Your task to perform on an android device: open app "Chime – Mobile Banking" (install if not already installed), go to login, and select forgot password Image 0: 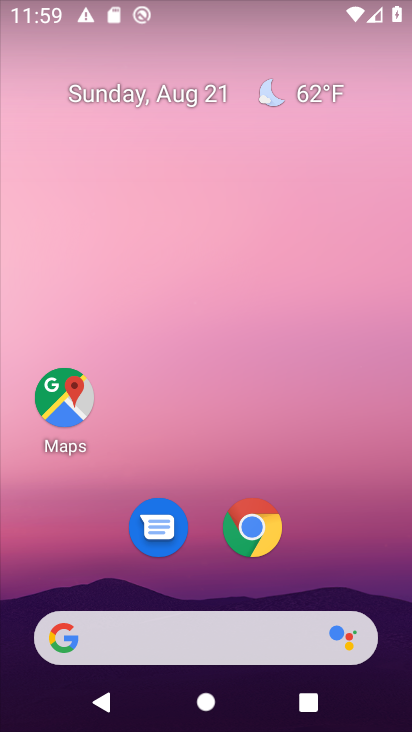
Step 0: drag from (198, 513) to (272, 7)
Your task to perform on an android device: open app "Chime – Mobile Banking" (install if not already installed), go to login, and select forgot password Image 1: 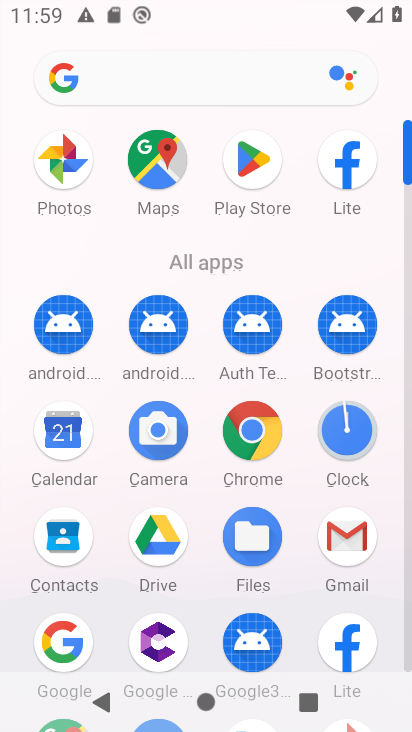
Step 1: click (258, 158)
Your task to perform on an android device: open app "Chime – Mobile Banking" (install if not already installed), go to login, and select forgot password Image 2: 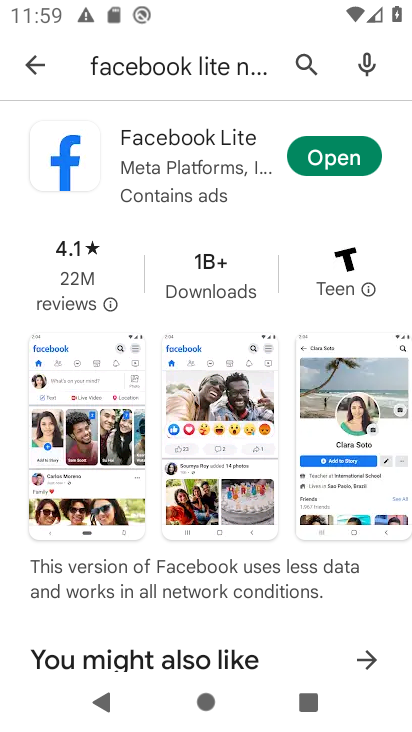
Step 2: click (308, 61)
Your task to perform on an android device: open app "Chime – Mobile Banking" (install if not already installed), go to login, and select forgot password Image 3: 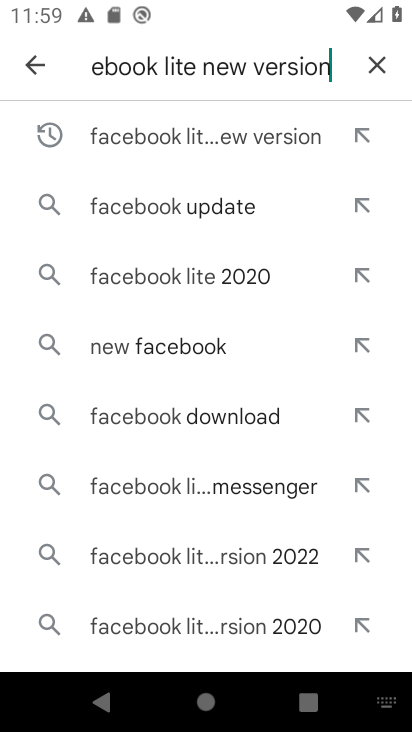
Step 3: click (382, 62)
Your task to perform on an android device: open app "Chime – Mobile Banking" (install if not already installed), go to login, and select forgot password Image 4: 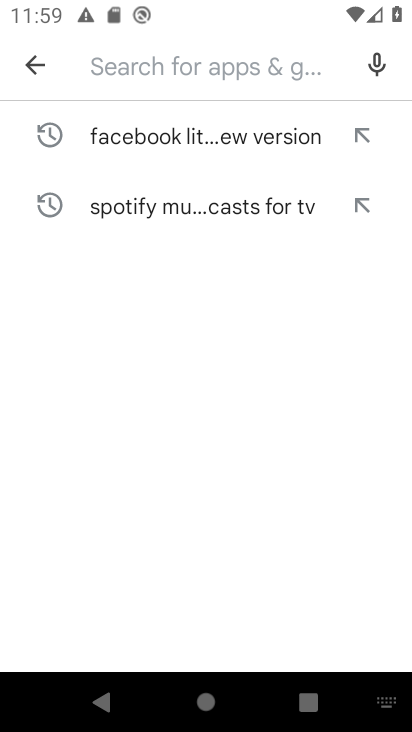
Step 4: click (208, 70)
Your task to perform on an android device: open app "Chime – Mobile Banking" (install if not already installed), go to login, and select forgot password Image 5: 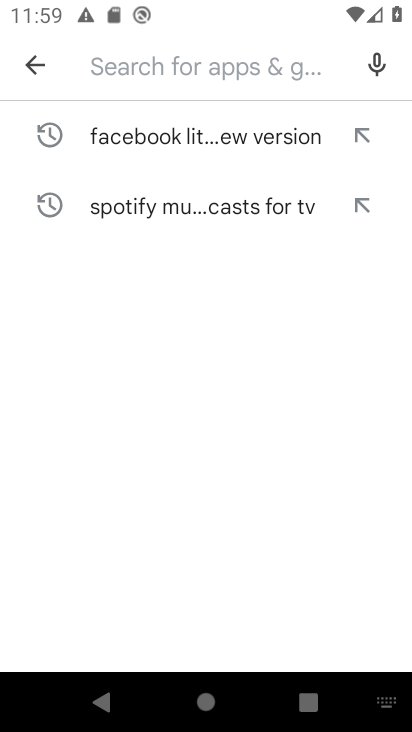
Step 5: type "chime"
Your task to perform on an android device: open app "Chime – Mobile Banking" (install if not already installed), go to login, and select forgot password Image 6: 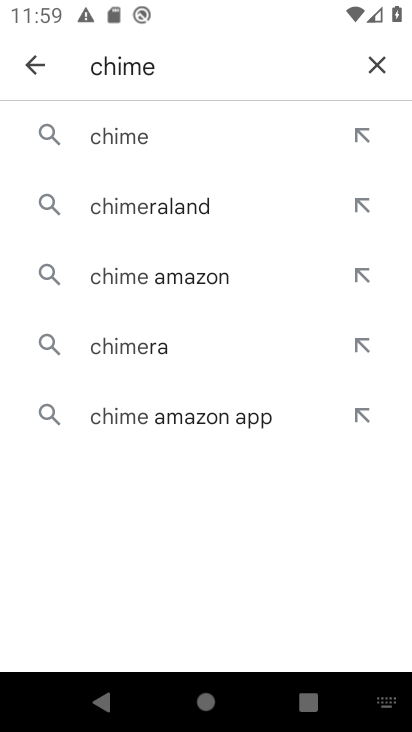
Step 6: click (164, 143)
Your task to perform on an android device: open app "Chime – Mobile Banking" (install if not already installed), go to login, and select forgot password Image 7: 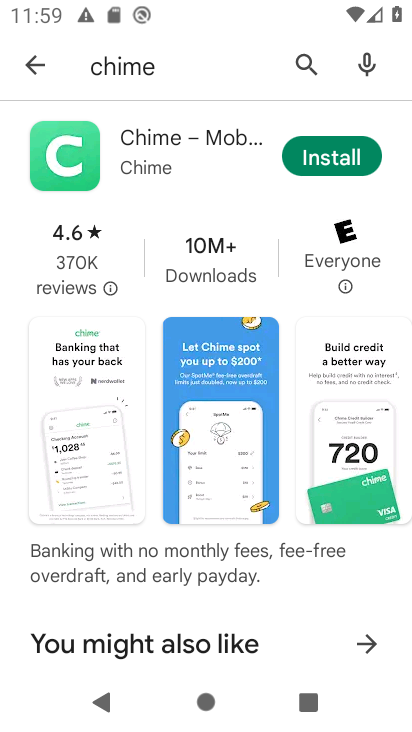
Step 7: click (292, 159)
Your task to perform on an android device: open app "Chime – Mobile Banking" (install if not already installed), go to login, and select forgot password Image 8: 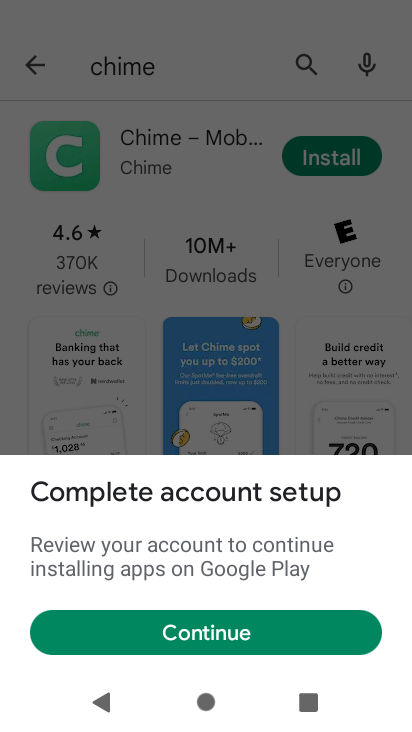
Step 8: click (243, 635)
Your task to perform on an android device: open app "Chime – Mobile Banking" (install if not already installed), go to login, and select forgot password Image 9: 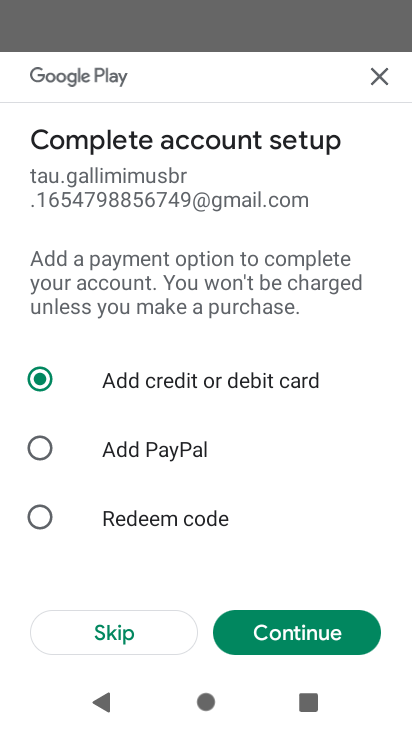
Step 9: click (140, 637)
Your task to perform on an android device: open app "Chime – Mobile Banking" (install if not already installed), go to login, and select forgot password Image 10: 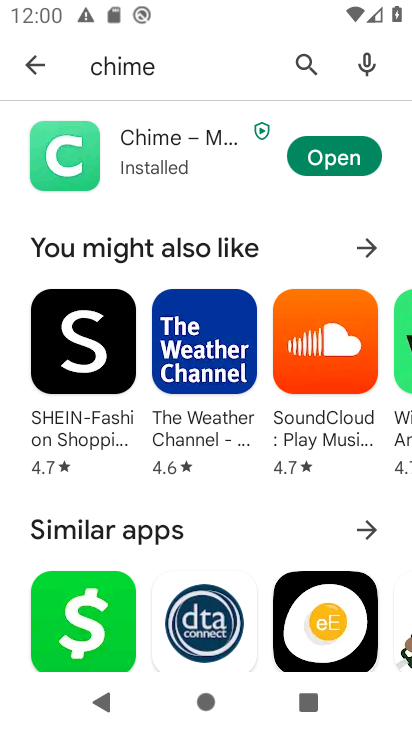
Step 10: click (345, 157)
Your task to perform on an android device: open app "Chime – Mobile Banking" (install if not already installed), go to login, and select forgot password Image 11: 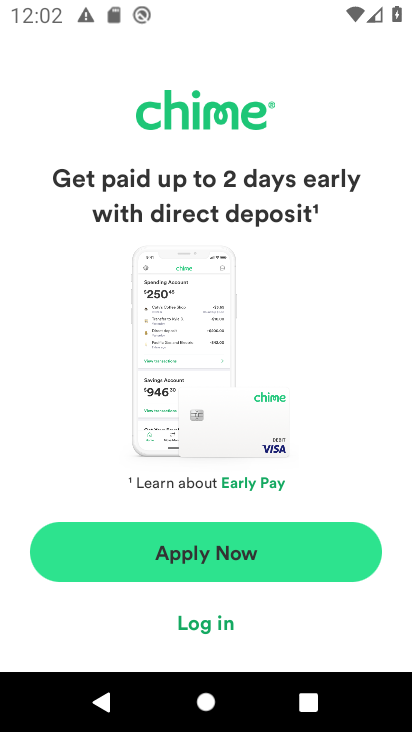
Step 11: click (208, 615)
Your task to perform on an android device: open app "Chime – Mobile Banking" (install if not already installed), go to login, and select forgot password Image 12: 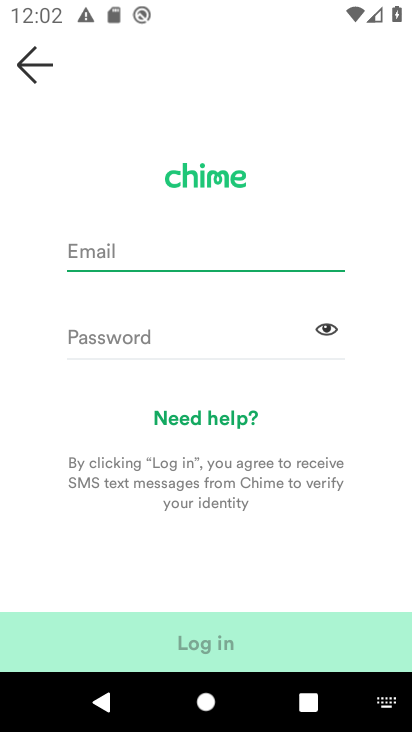
Step 12: task complete